Your task to perform on an android device: Search for seafood restaurants on Google Maps Image 0: 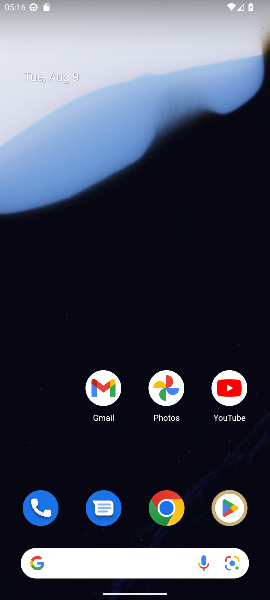
Step 0: drag from (127, 458) to (121, 27)
Your task to perform on an android device: Search for seafood restaurants on Google Maps Image 1: 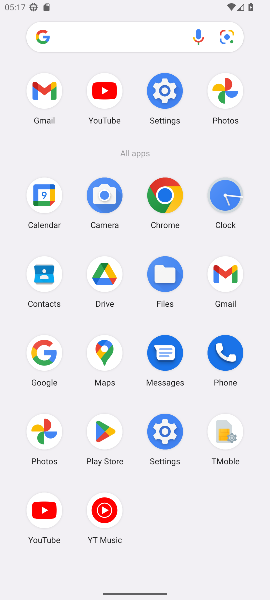
Step 1: click (98, 349)
Your task to perform on an android device: Search for seafood restaurants on Google Maps Image 2: 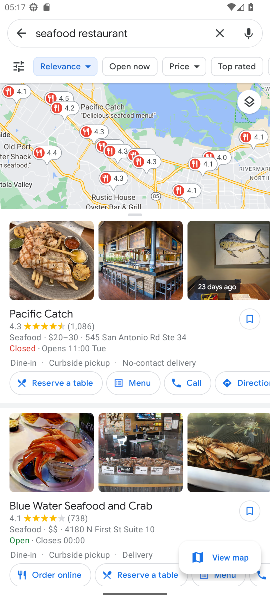
Step 2: task complete